Your task to perform on an android device: Open Maps and search for coffee Image 0: 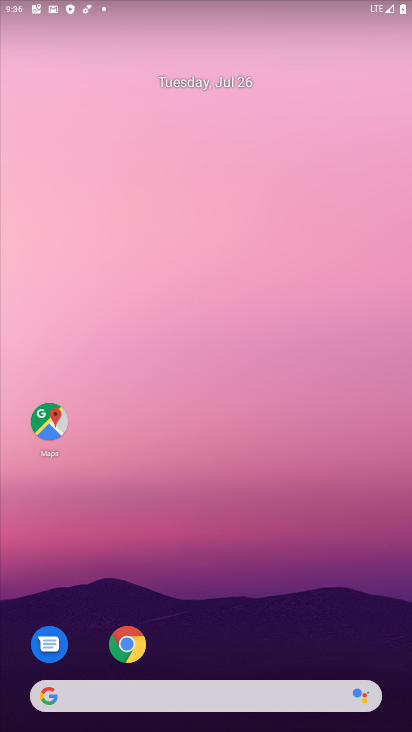
Step 0: click (54, 423)
Your task to perform on an android device: Open Maps and search for coffee Image 1: 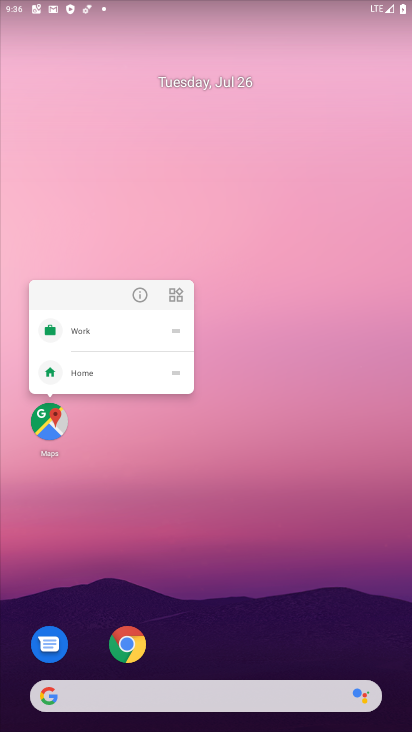
Step 1: click (54, 423)
Your task to perform on an android device: Open Maps and search for coffee Image 2: 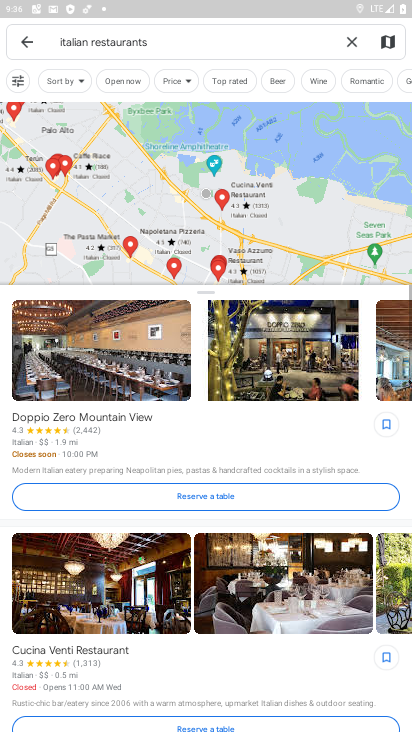
Step 2: click (347, 36)
Your task to perform on an android device: Open Maps and search for coffee Image 3: 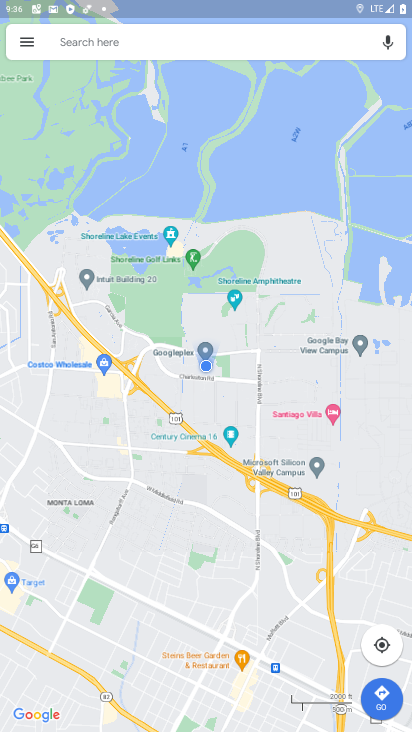
Step 3: click (105, 41)
Your task to perform on an android device: Open Maps and search for coffee Image 4: 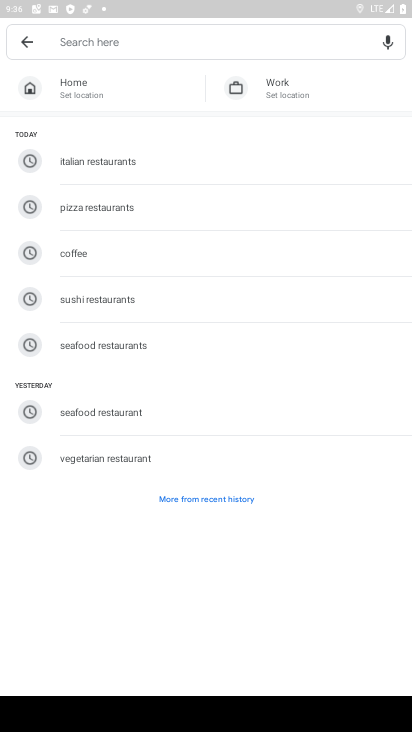
Step 4: click (83, 256)
Your task to perform on an android device: Open Maps and search for coffee Image 5: 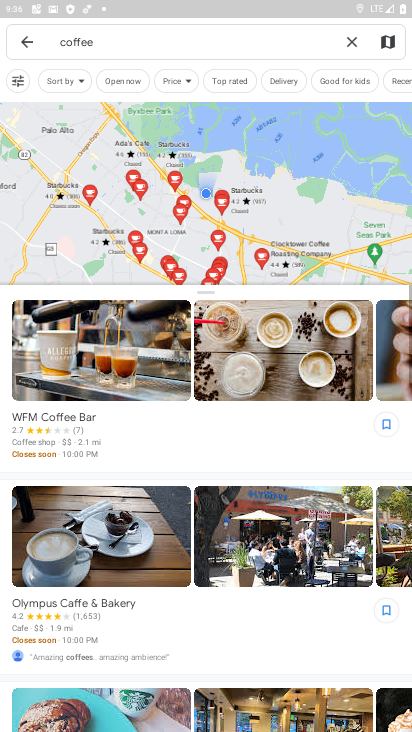
Step 5: task complete